Your task to perform on an android device: Go to calendar. Show me events next week Image 0: 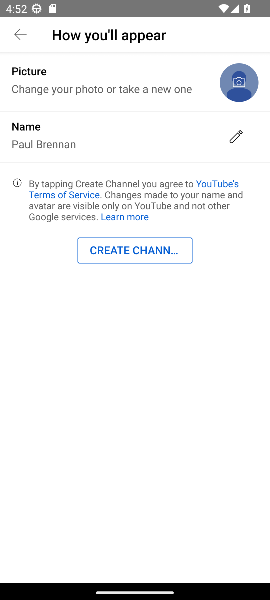
Step 0: press home button
Your task to perform on an android device: Go to calendar. Show me events next week Image 1: 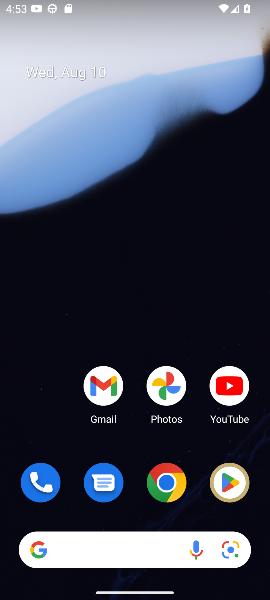
Step 1: drag from (53, 412) to (75, 26)
Your task to perform on an android device: Go to calendar. Show me events next week Image 2: 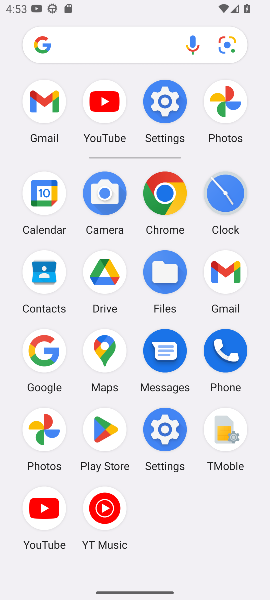
Step 2: click (49, 194)
Your task to perform on an android device: Go to calendar. Show me events next week Image 3: 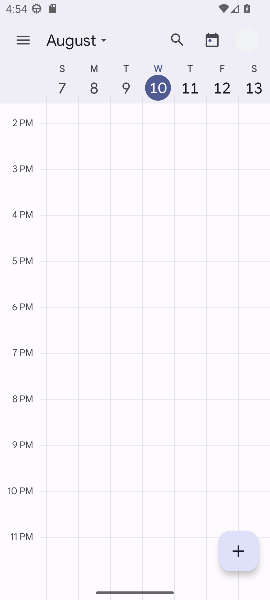
Step 3: task complete